Your task to perform on an android device: change the clock display to show seconds Image 0: 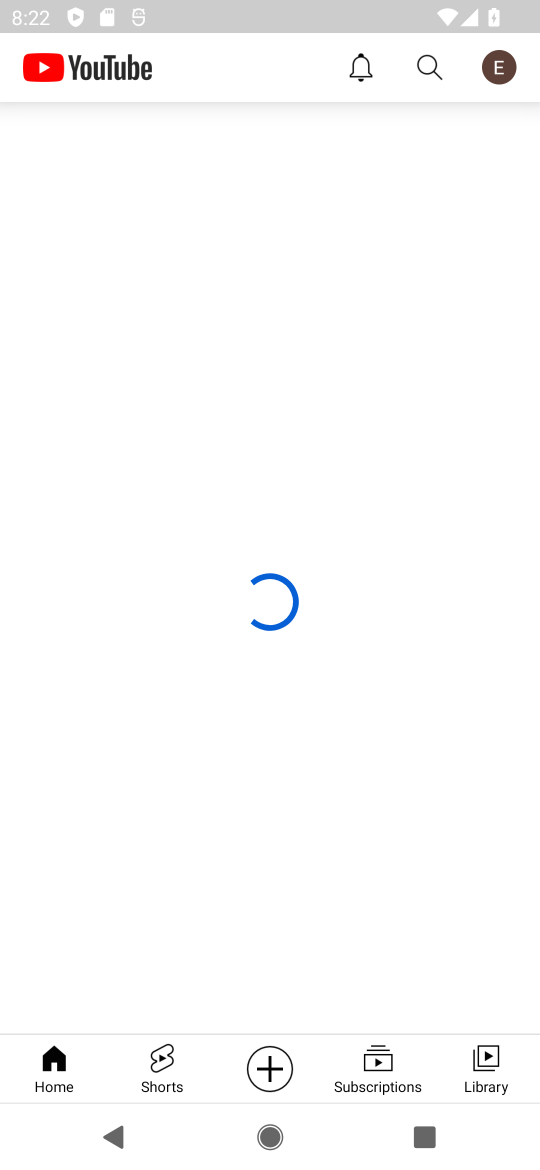
Step 0: press home button
Your task to perform on an android device: change the clock display to show seconds Image 1: 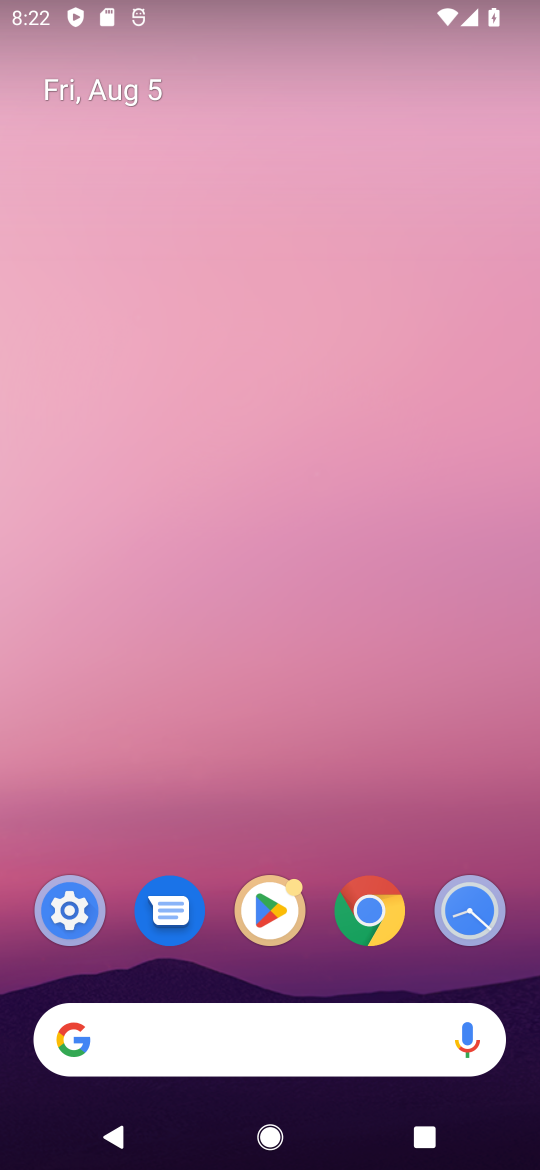
Step 1: drag from (311, 844) to (448, 345)
Your task to perform on an android device: change the clock display to show seconds Image 2: 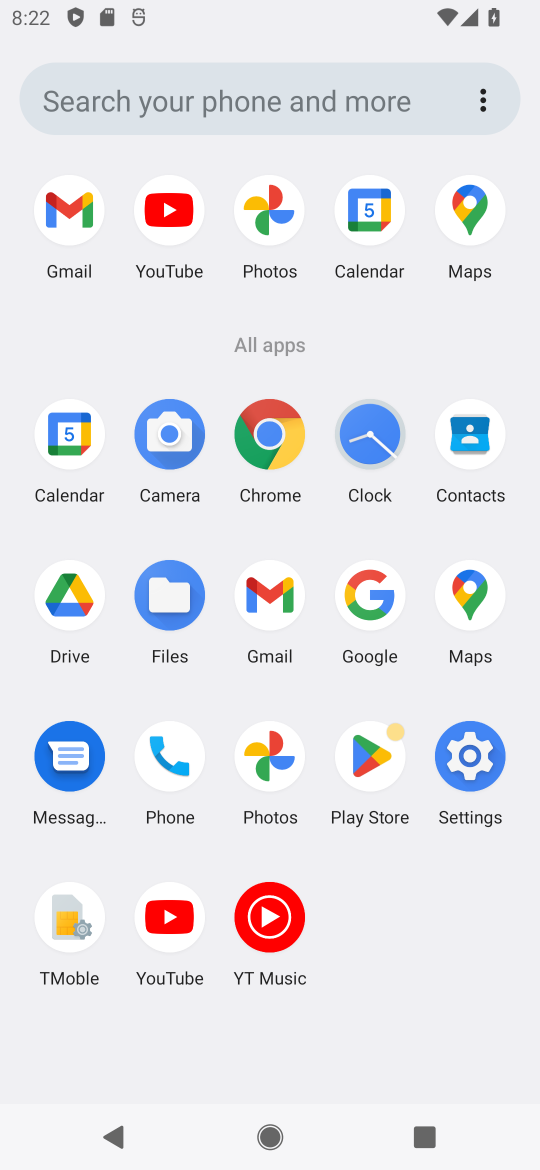
Step 2: click (371, 426)
Your task to perform on an android device: change the clock display to show seconds Image 3: 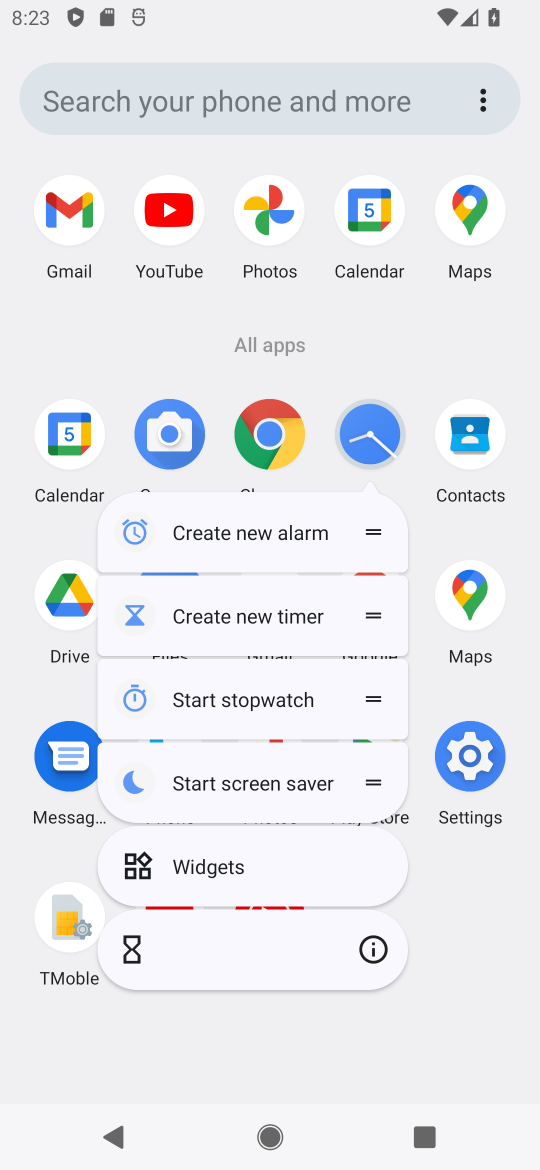
Step 3: click (368, 432)
Your task to perform on an android device: change the clock display to show seconds Image 4: 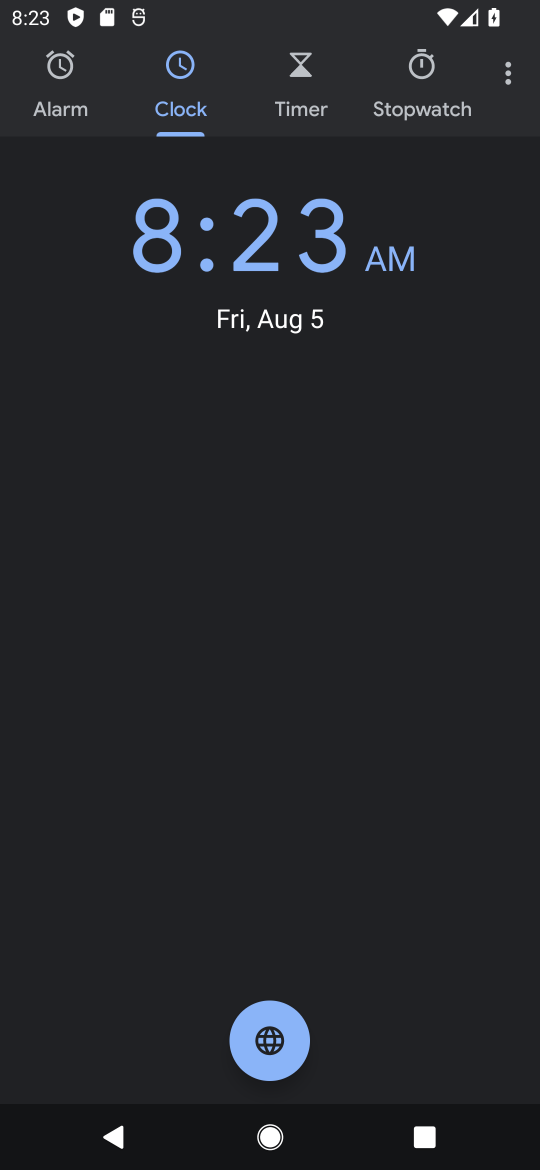
Step 4: click (505, 73)
Your task to perform on an android device: change the clock display to show seconds Image 5: 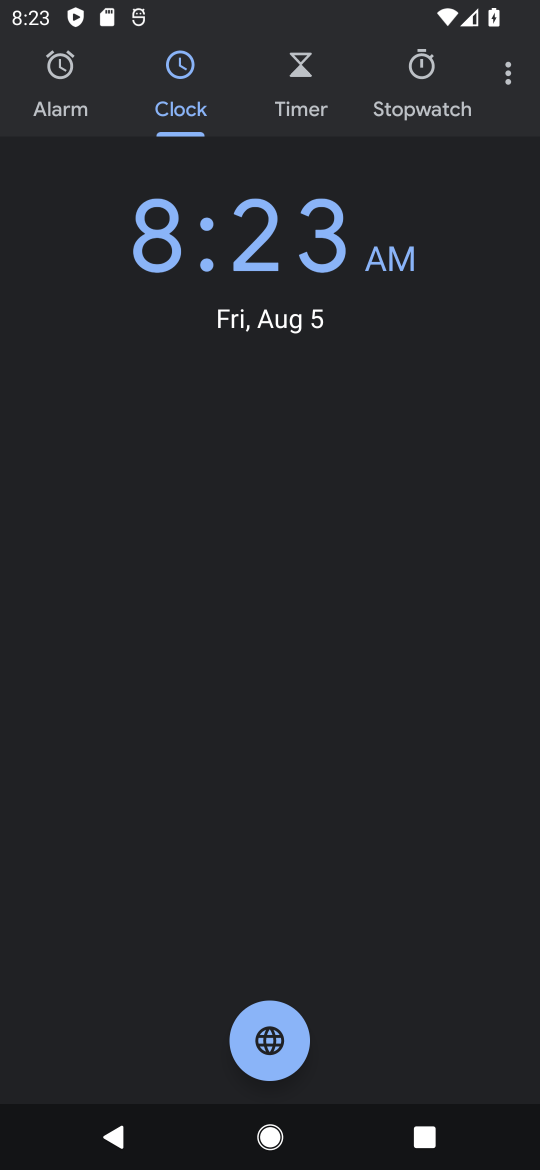
Step 5: click (512, 72)
Your task to perform on an android device: change the clock display to show seconds Image 6: 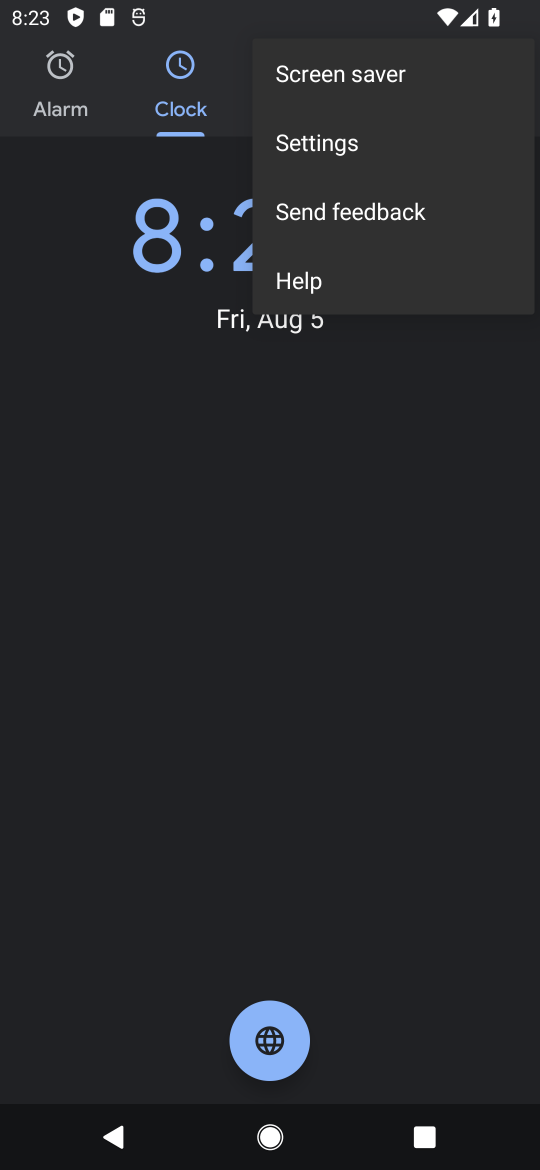
Step 6: click (299, 154)
Your task to perform on an android device: change the clock display to show seconds Image 7: 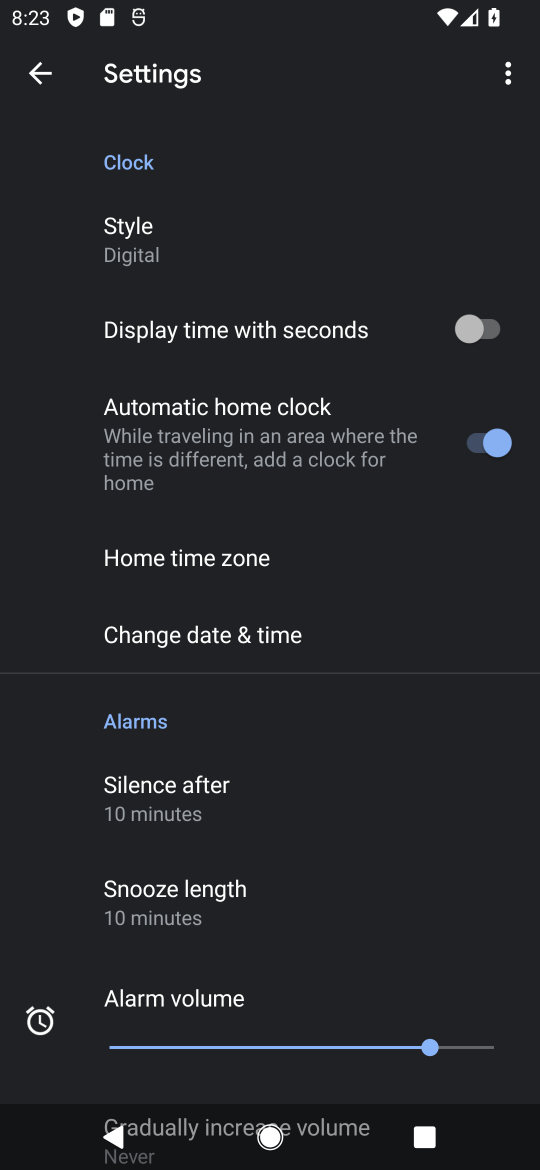
Step 7: click (485, 322)
Your task to perform on an android device: change the clock display to show seconds Image 8: 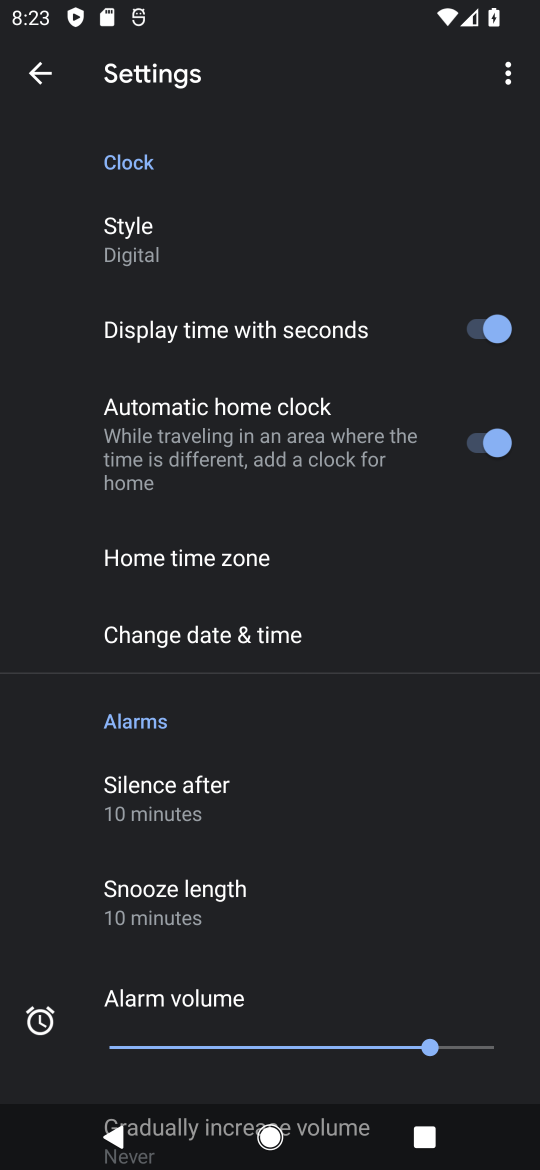
Step 8: task complete